Your task to perform on an android device: toggle location history Image 0: 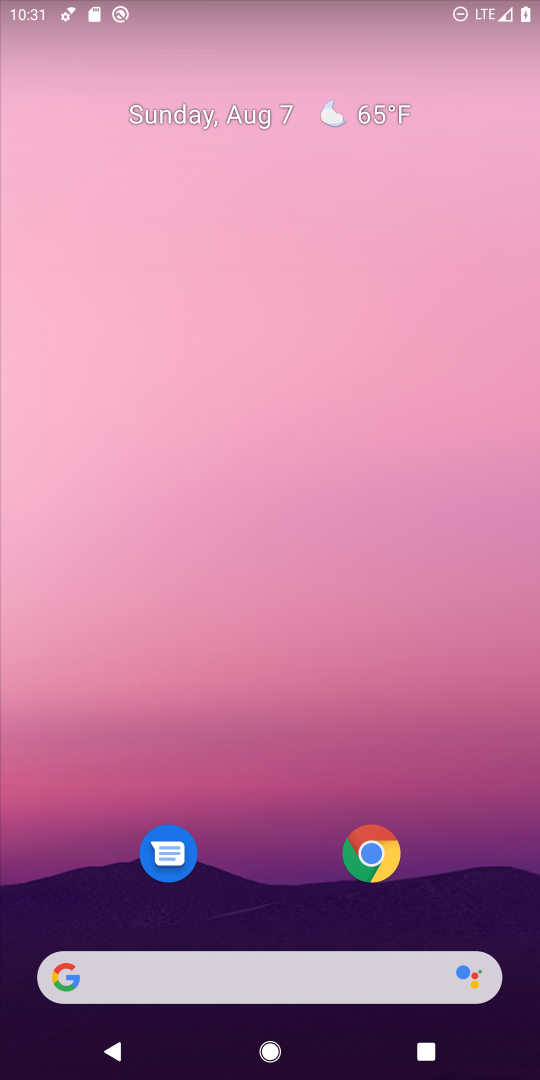
Step 0: drag from (284, 940) to (284, 243)
Your task to perform on an android device: toggle location history Image 1: 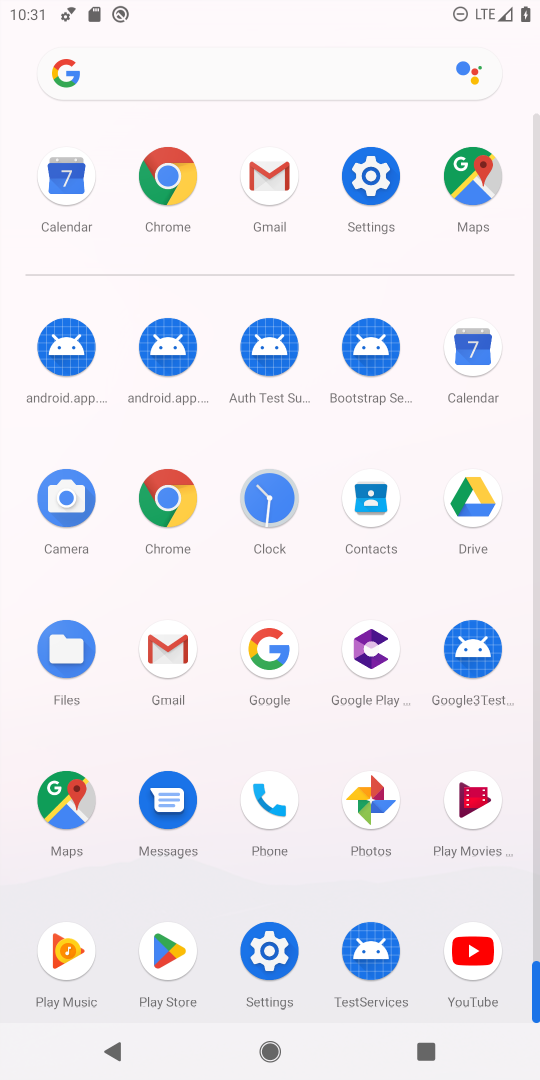
Step 1: click (379, 154)
Your task to perform on an android device: toggle location history Image 2: 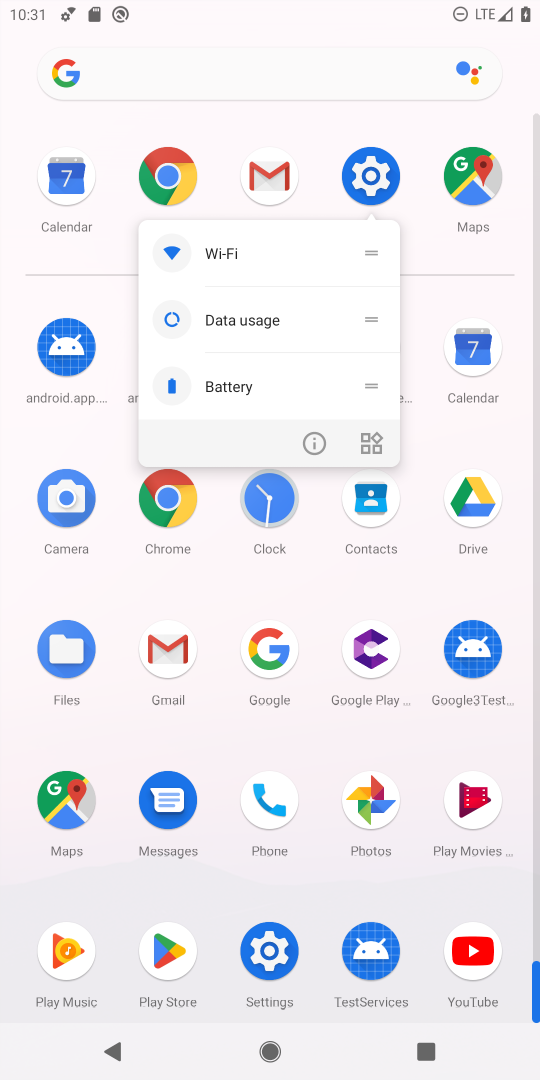
Step 2: click (369, 157)
Your task to perform on an android device: toggle location history Image 3: 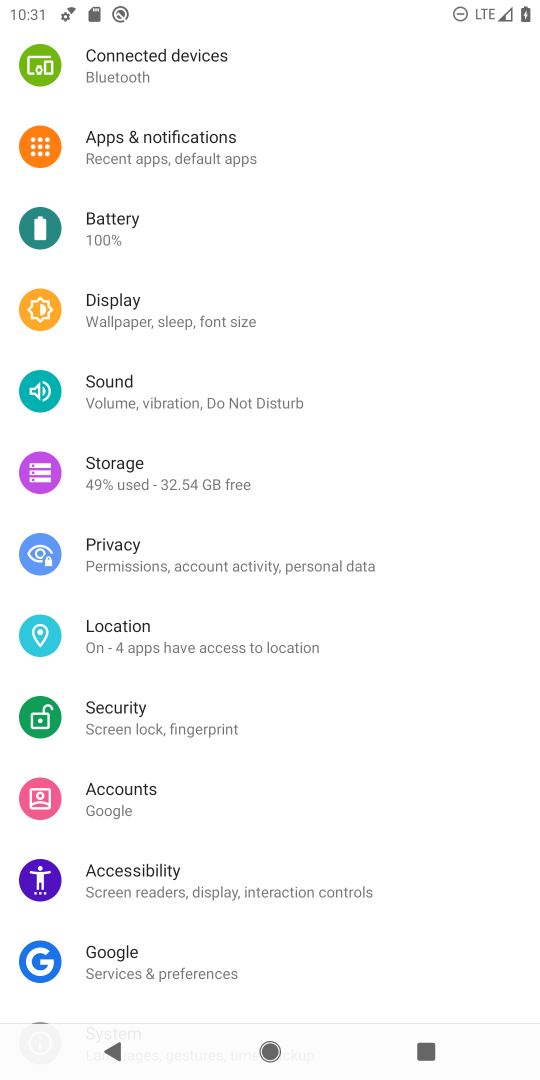
Step 3: click (183, 640)
Your task to perform on an android device: toggle location history Image 4: 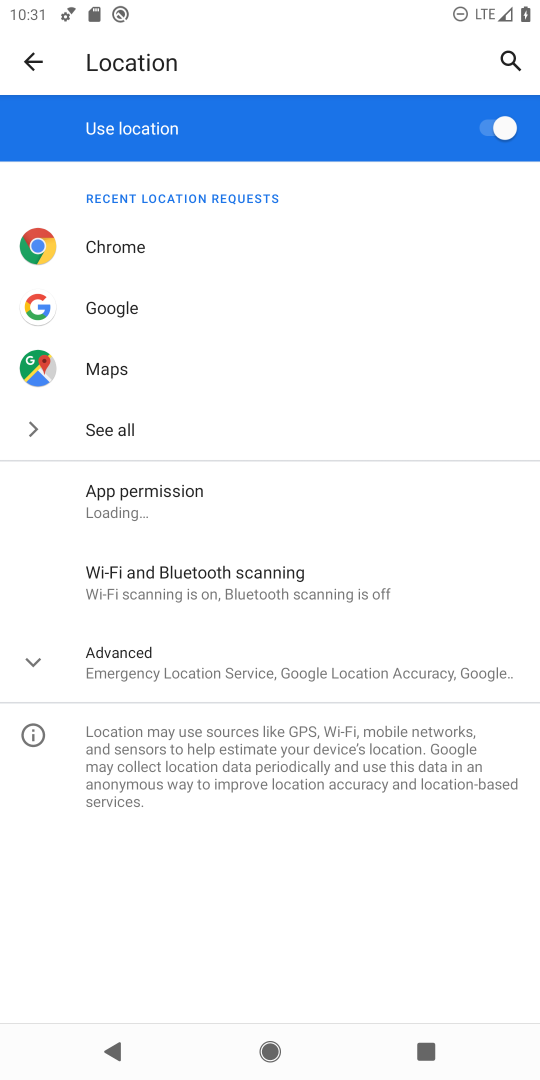
Step 4: click (488, 132)
Your task to perform on an android device: toggle location history Image 5: 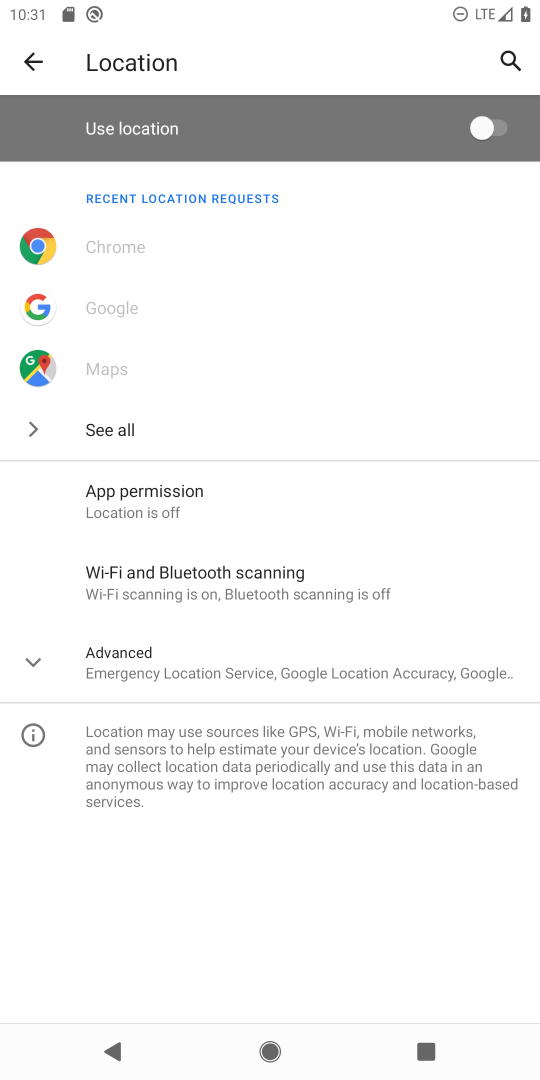
Step 5: task complete